Your task to perform on an android device: Open the calendar app, open the side menu, and click the "Day" option Image 0: 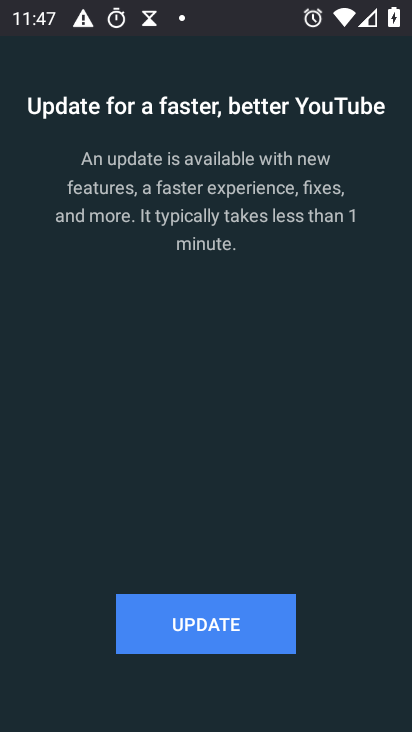
Step 0: press home button
Your task to perform on an android device: Open the calendar app, open the side menu, and click the "Day" option Image 1: 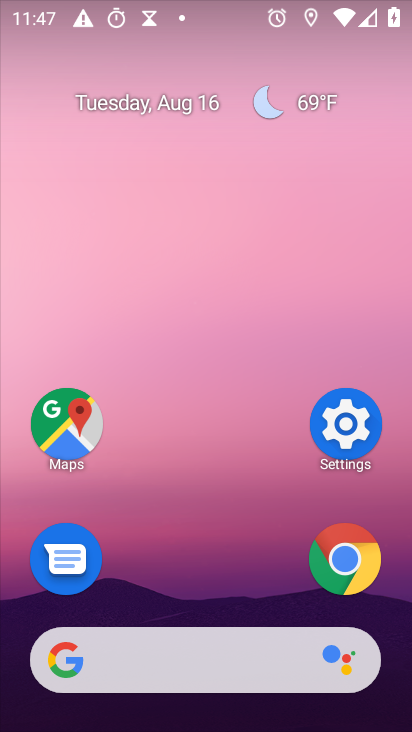
Step 1: click (282, 240)
Your task to perform on an android device: Open the calendar app, open the side menu, and click the "Day" option Image 2: 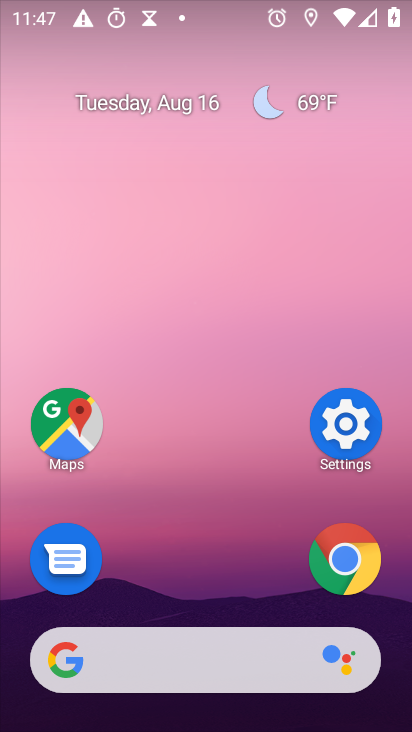
Step 2: drag from (177, 626) to (245, 173)
Your task to perform on an android device: Open the calendar app, open the side menu, and click the "Day" option Image 3: 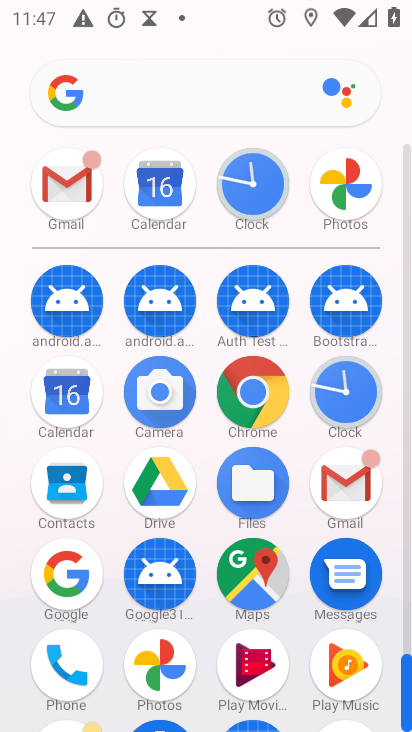
Step 3: click (55, 405)
Your task to perform on an android device: Open the calendar app, open the side menu, and click the "Day" option Image 4: 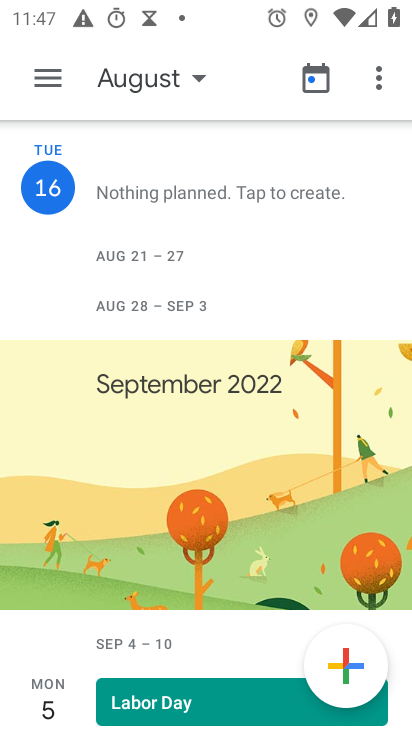
Step 4: click (54, 74)
Your task to perform on an android device: Open the calendar app, open the side menu, and click the "Day" option Image 5: 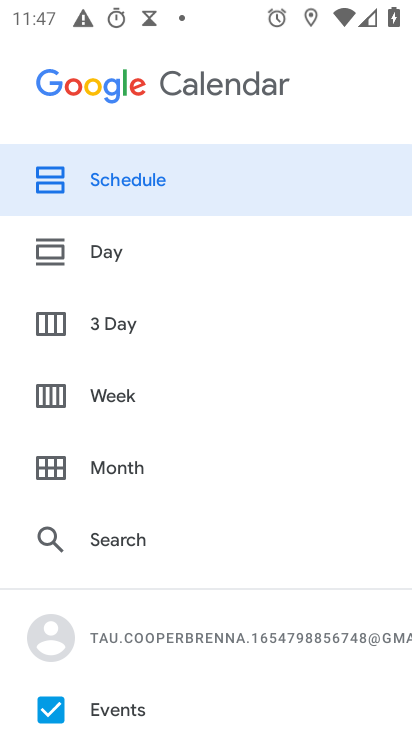
Step 5: click (109, 258)
Your task to perform on an android device: Open the calendar app, open the side menu, and click the "Day" option Image 6: 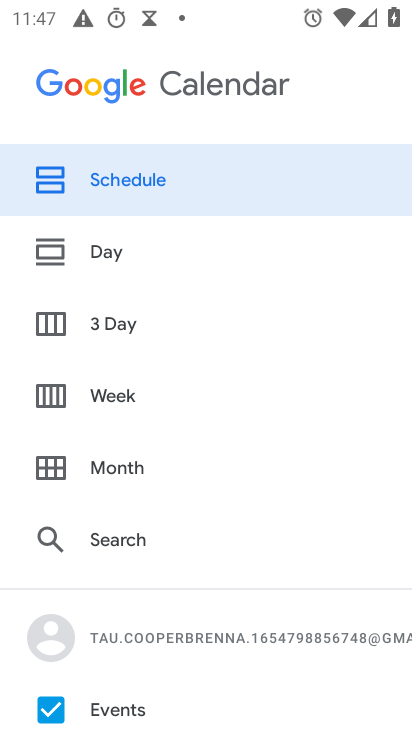
Step 6: click (107, 247)
Your task to perform on an android device: Open the calendar app, open the side menu, and click the "Day" option Image 7: 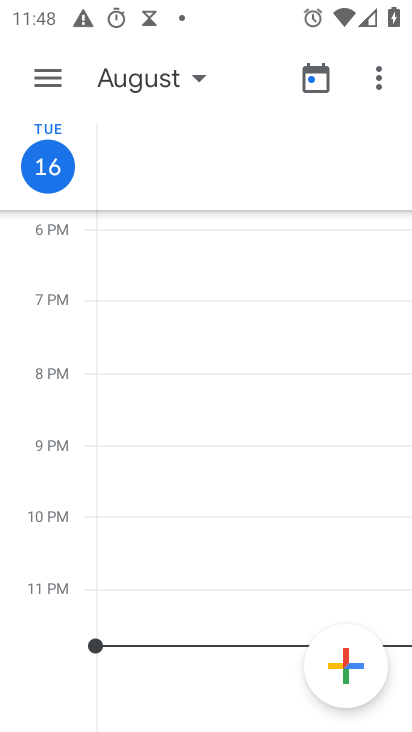
Step 7: task complete